Your task to perform on an android device: Open the calendar and show me this week's events? Image 0: 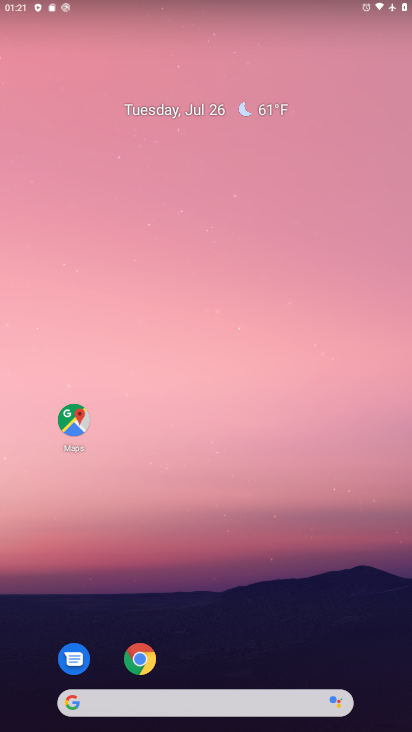
Step 0: drag from (254, 547) to (228, 15)
Your task to perform on an android device: Open the calendar and show me this week's events? Image 1: 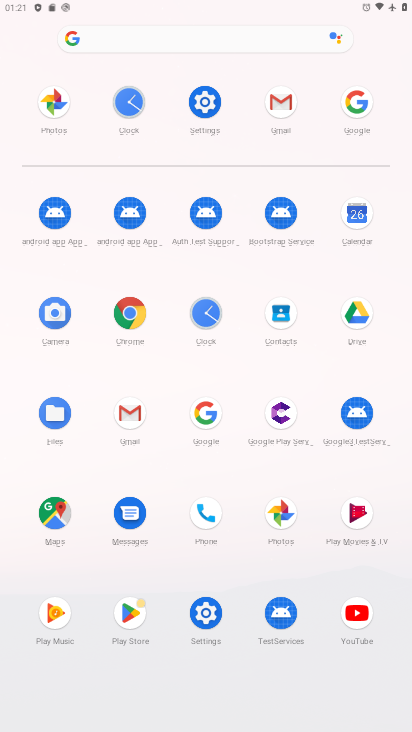
Step 1: click (357, 214)
Your task to perform on an android device: Open the calendar and show me this week's events? Image 2: 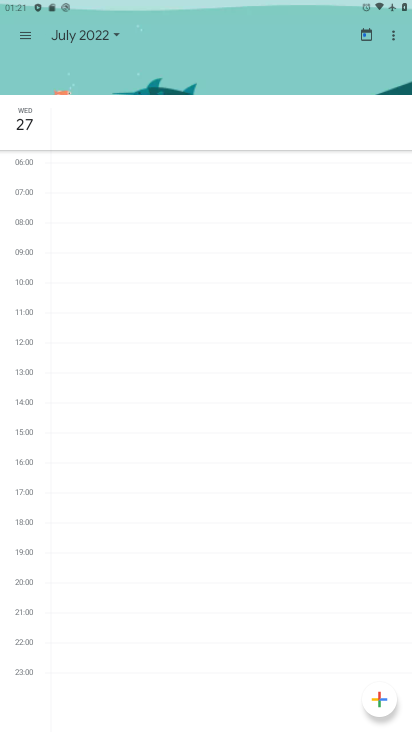
Step 2: click (36, 33)
Your task to perform on an android device: Open the calendar and show me this week's events? Image 3: 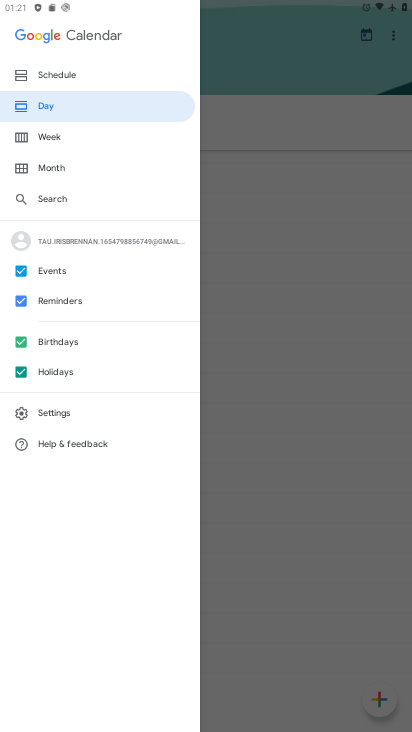
Step 3: click (58, 138)
Your task to perform on an android device: Open the calendar and show me this week's events? Image 4: 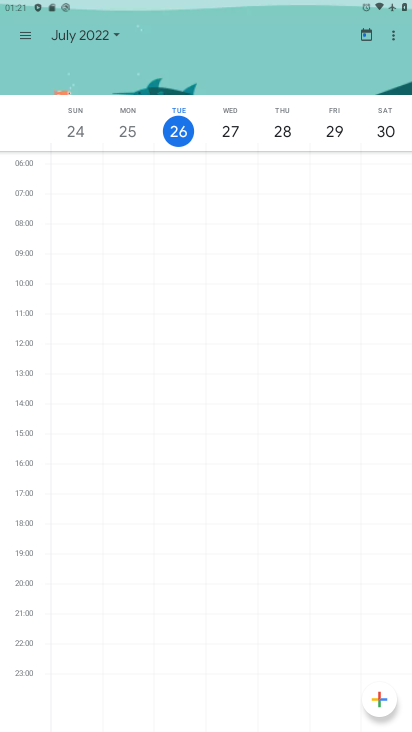
Step 4: task complete